Your task to perform on an android device: change text size in settings app Image 0: 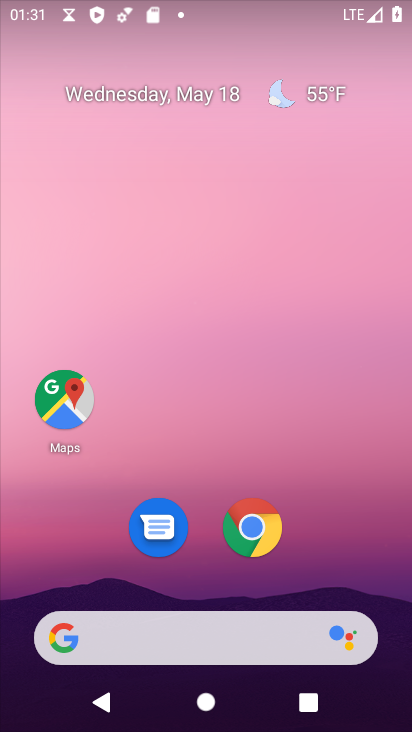
Step 0: drag from (323, 555) to (217, 0)
Your task to perform on an android device: change text size in settings app Image 1: 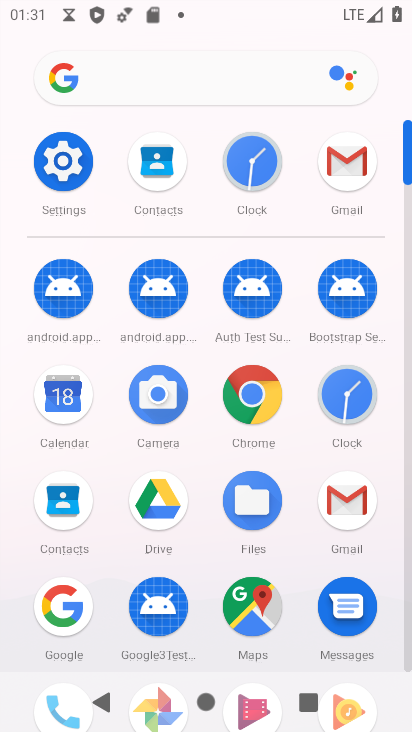
Step 1: click (75, 155)
Your task to perform on an android device: change text size in settings app Image 2: 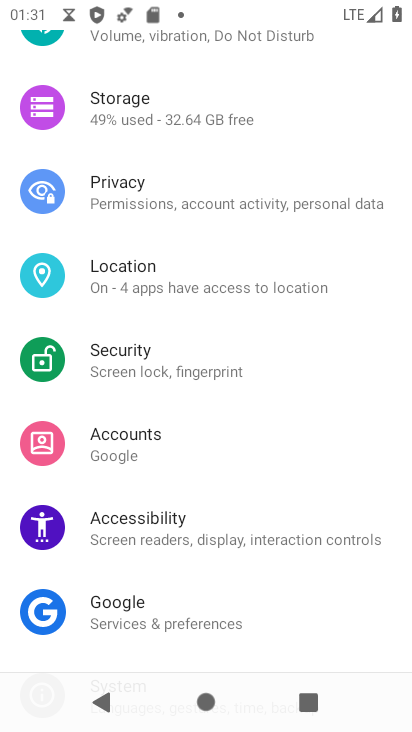
Step 2: drag from (255, 183) to (150, 677)
Your task to perform on an android device: change text size in settings app Image 3: 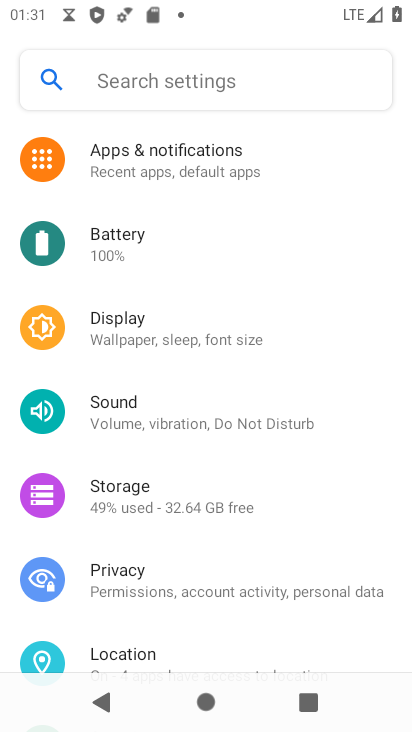
Step 3: click (175, 350)
Your task to perform on an android device: change text size in settings app Image 4: 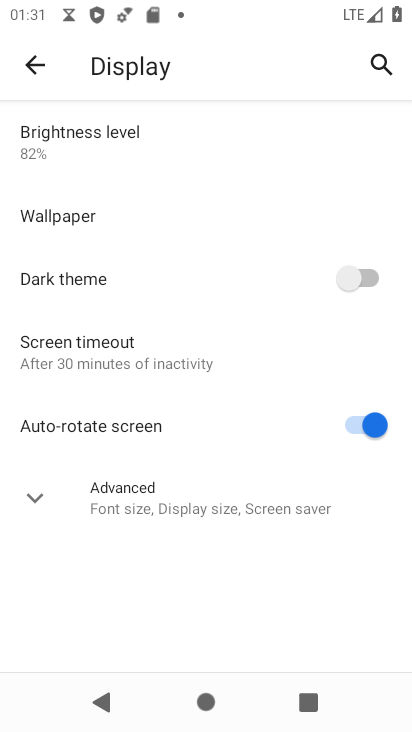
Step 4: click (142, 521)
Your task to perform on an android device: change text size in settings app Image 5: 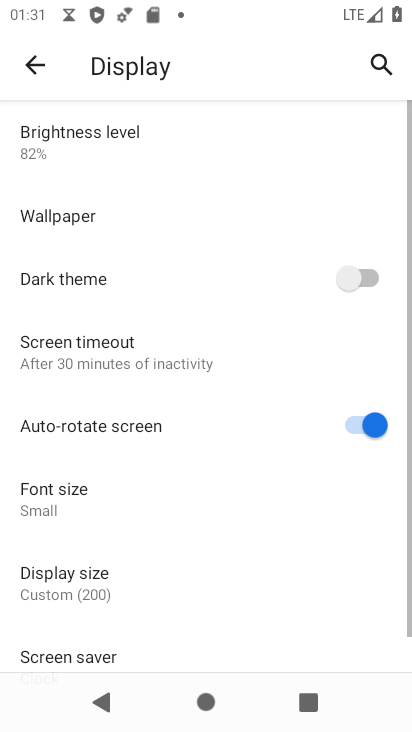
Step 5: click (145, 502)
Your task to perform on an android device: change text size in settings app Image 6: 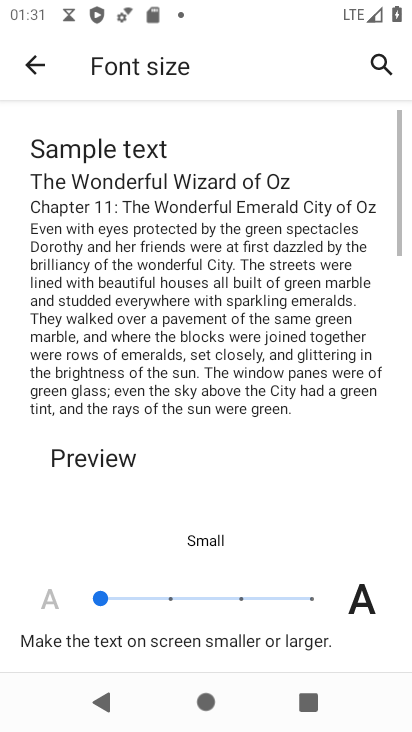
Step 6: click (170, 598)
Your task to perform on an android device: change text size in settings app Image 7: 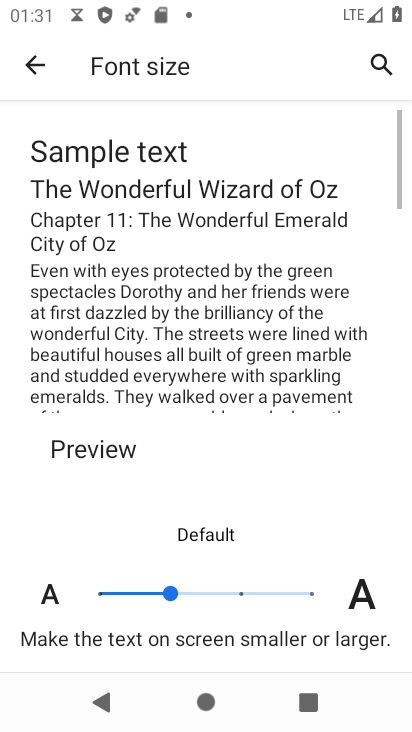
Step 7: task complete